Your task to perform on an android device: check the backup settings in the google photos Image 0: 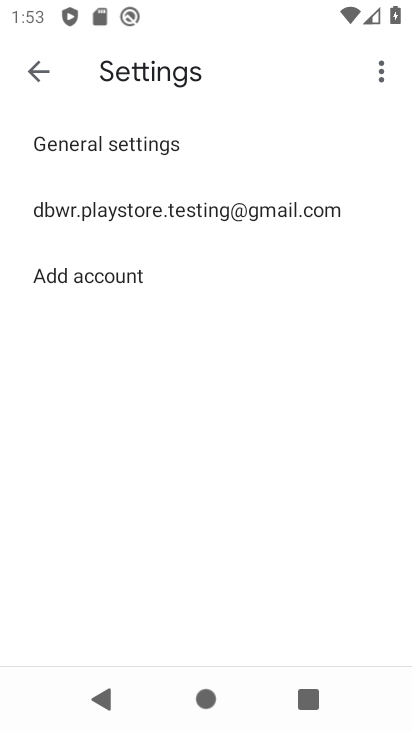
Step 0: press home button
Your task to perform on an android device: check the backup settings in the google photos Image 1: 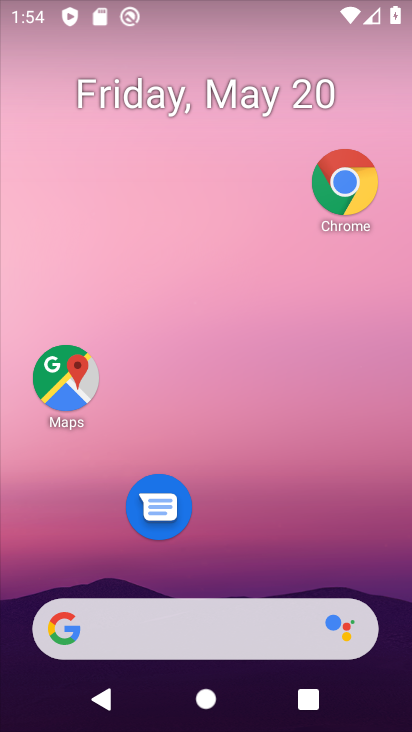
Step 1: drag from (270, 521) to (301, 109)
Your task to perform on an android device: check the backup settings in the google photos Image 2: 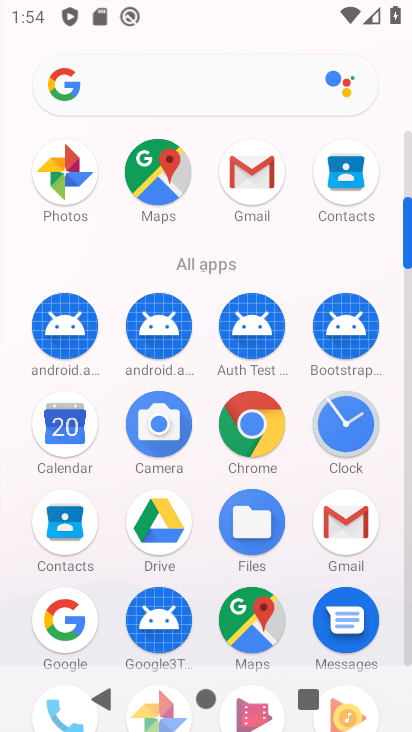
Step 2: click (69, 177)
Your task to perform on an android device: check the backup settings in the google photos Image 3: 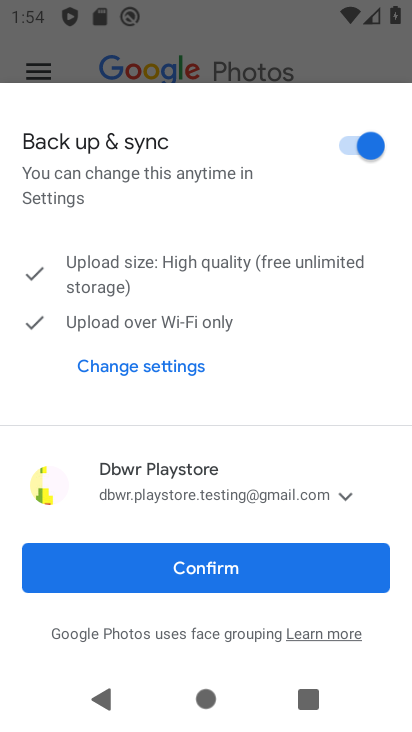
Step 3: click (188, 563)
Your task to perform on an android device: check the backup settings in the google photos Image 4: 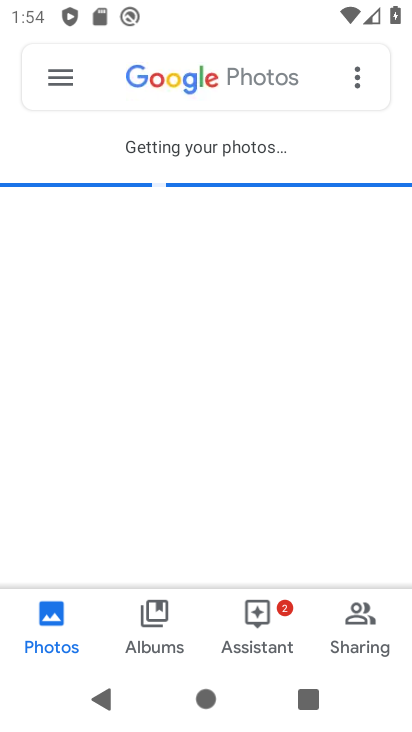
Step 4: click (60, 83)
Your task to perform on an android device: check the backup settings in the google photos Image 5: 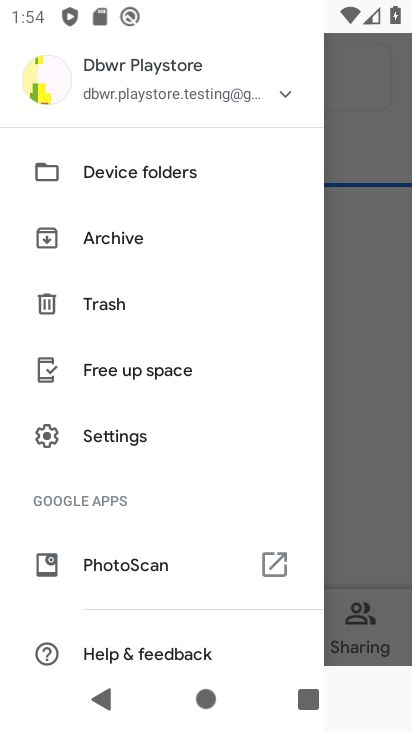
Step 5: click (120, 436)
Your task to perform on an android device: check the backup settings in the google photos Image 6: 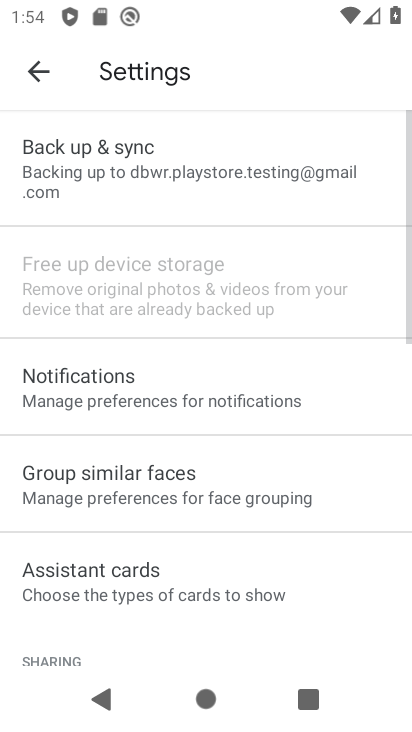
Step 6: click (135, 171)
Your task to perform on an android device: check the backup settings in the google photos Image 7: 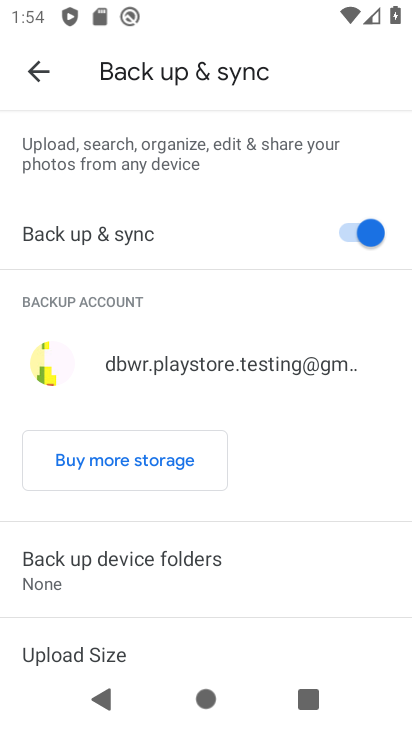
Step 7: drag from (235, 562) to (238, 497)
Your task to perform on an android device: check the backup settings in the google photos Image 8: 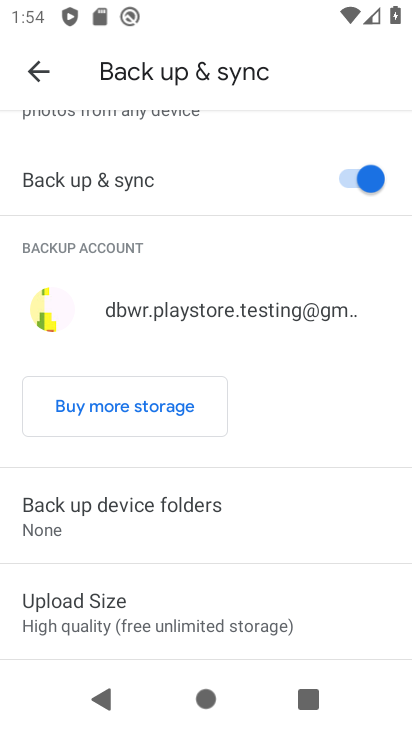
Step 8: click (362, 186)
Your task to perform on an android device: check the backup settings in the google photos Image 9: 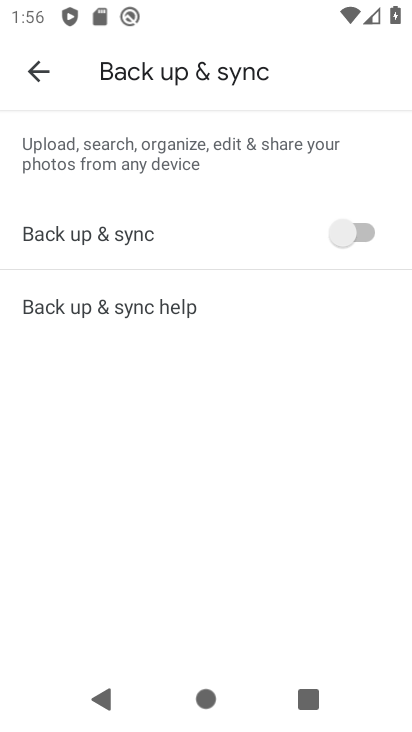
Step 9: task complete